Your task to perform on an android device: change alarm snooze length Image 0: 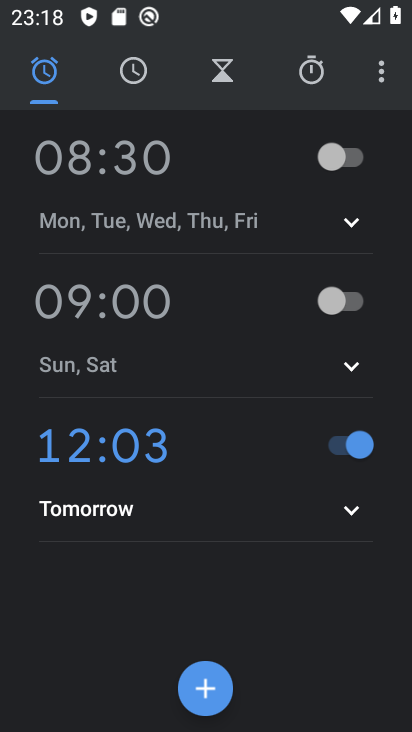
Step 0: press home button
Your task to perform on an android device: change alarm snooze length Image 1: 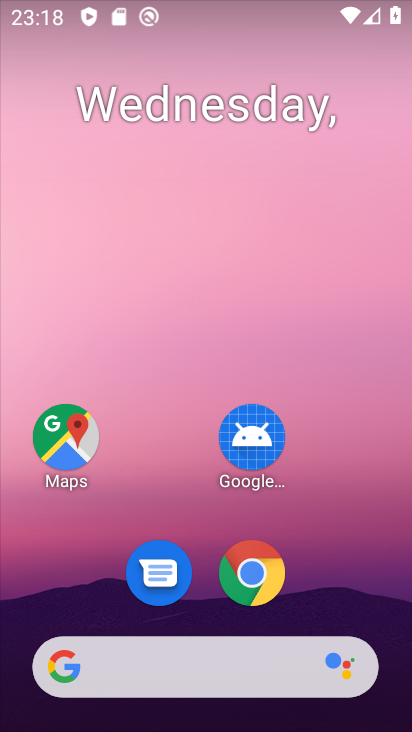
Step 1: drag from (139, 489) to (233, 0)
Your task to perform on an android device: change alarm snooze length Image 2: 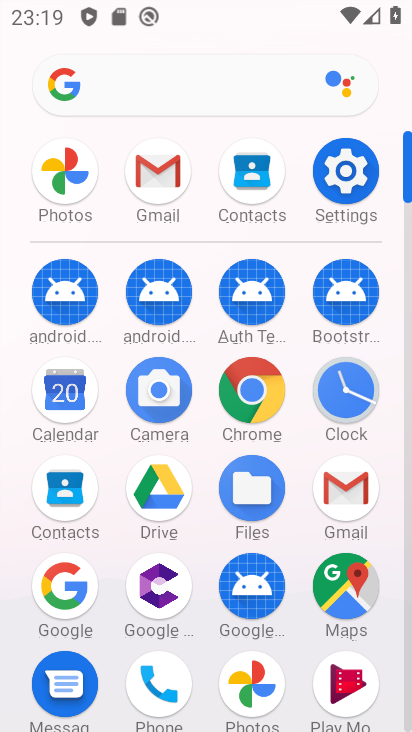
Step 2: click (347, 390)
Your task to perform on an android device: change alarm snooze length Image 3: 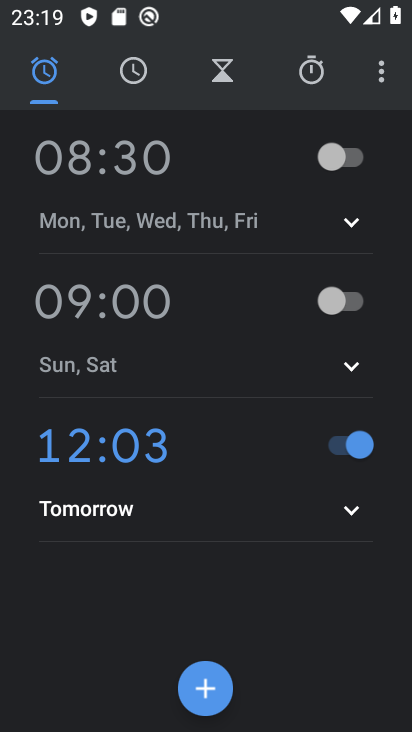
Step 3: click (380, 70)
Your task to perform on an android device: change alarm snooze length Image 4: 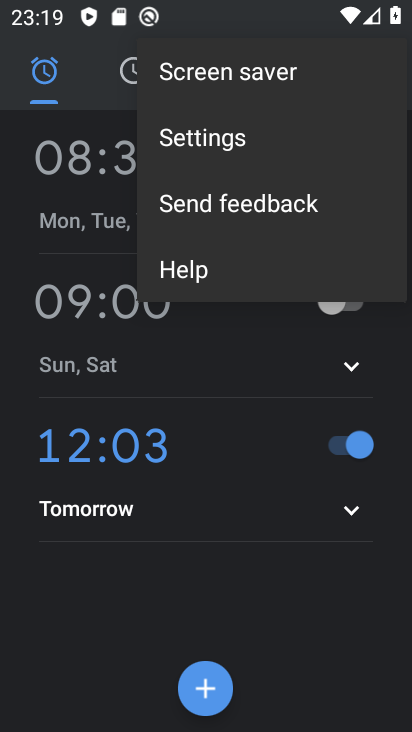
Step 4: click (250, 132)
Your task to perform on an android device: change alarm snooze length Image 5: 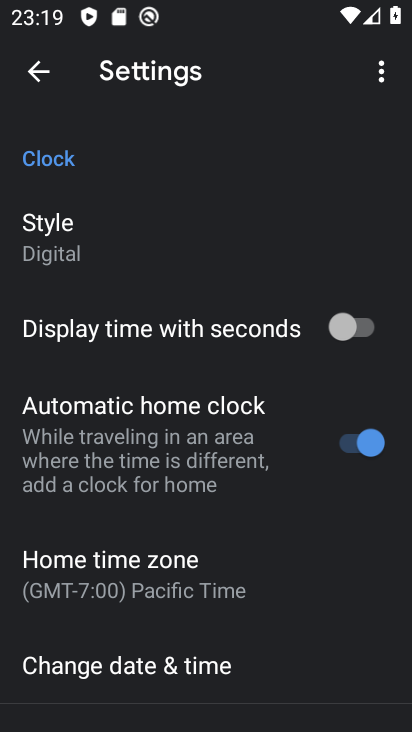
Step 5: drag from (235, 631) to (239, 394)
Your task to perform on an android device: change alarm snooze length Image 6: 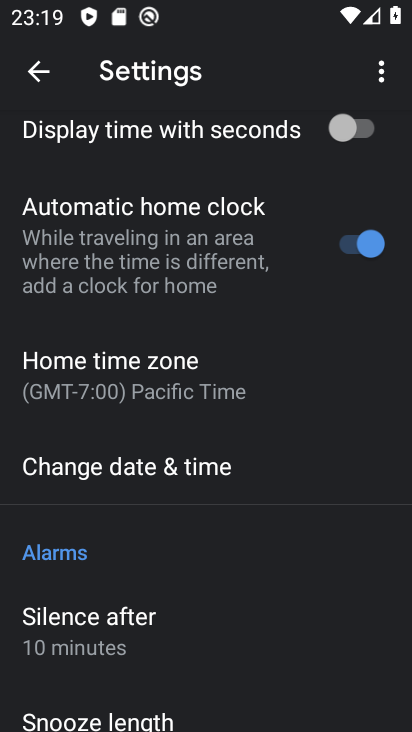
Step 6: drag from (191, 609) to (210, 477)
Your task to perform on an android device: change alarm snooze length Image 7: 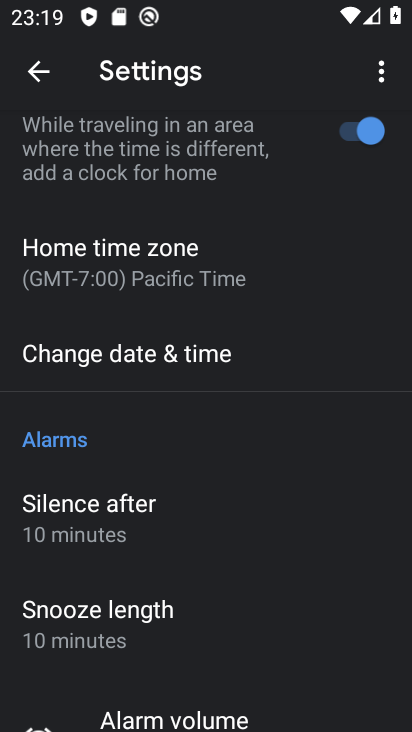
Step 7: click (139, 609)
Your task to perform on an android device: change alarm snooze length Image 8: 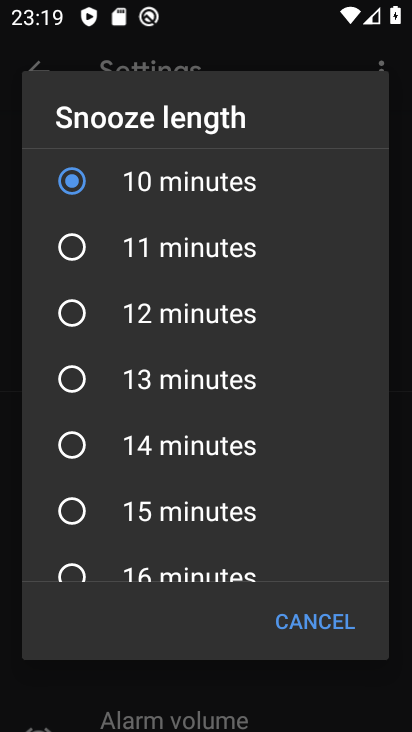
Step 8: click (70, 313)
Your task to perform on an android device: change alarm snooze length Image 9: 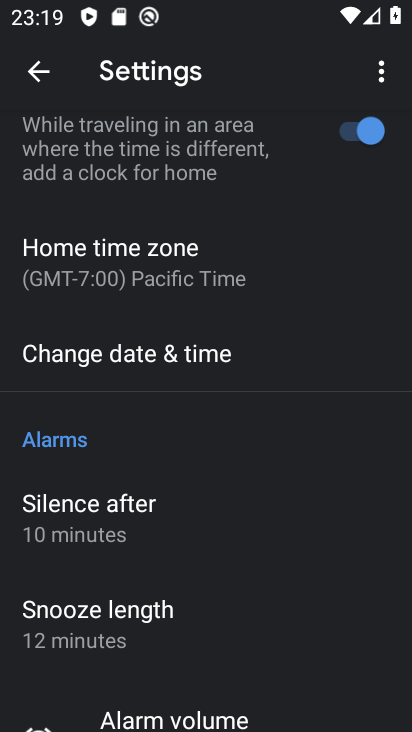
Step 9: task complete